Your task to perform on an android device: toggle wifi Image 0: 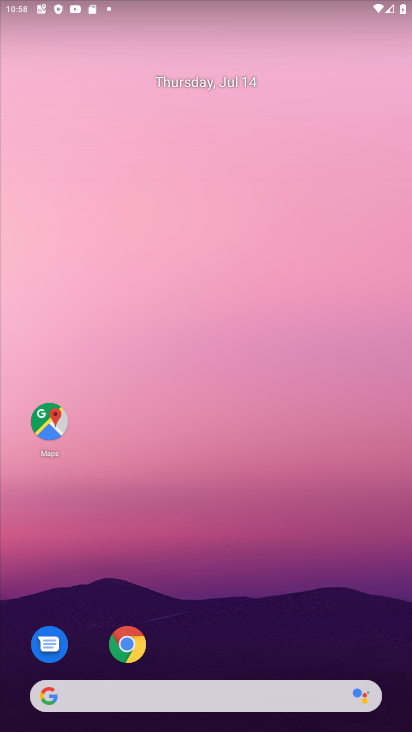
Step 0: drag from (187, 681) to (256, 37)
Your task to perform on an android device: toggle wifi Image 1: 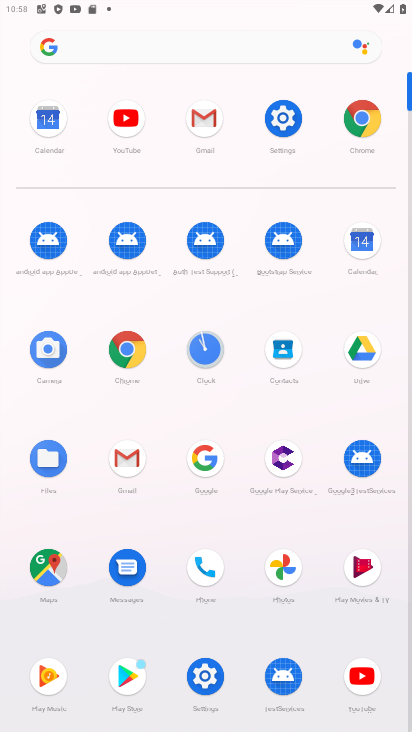
Step 1: click (278, 115)
Your task to perform on an android device: toggle wifi Image 2: 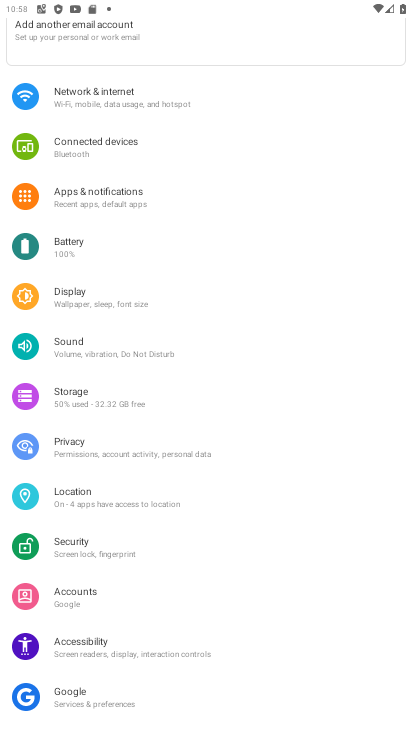
Step 2: click (87, 98)
Your task to perform on an android device: toggle wifi Image 3: 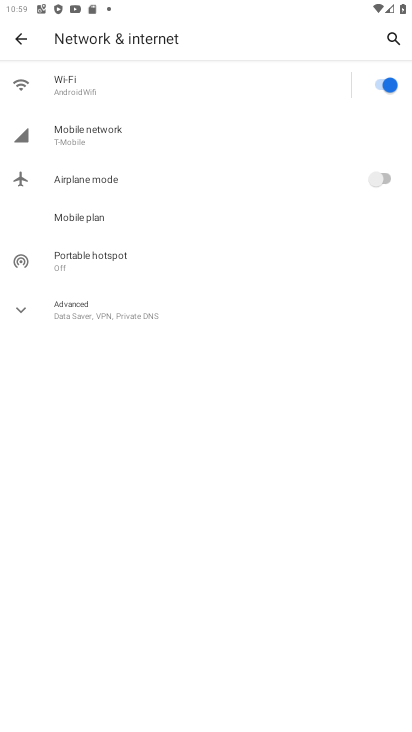
Step 3: click (390, 90)
Your task to perform on an android device: toggle wifi Image 4: 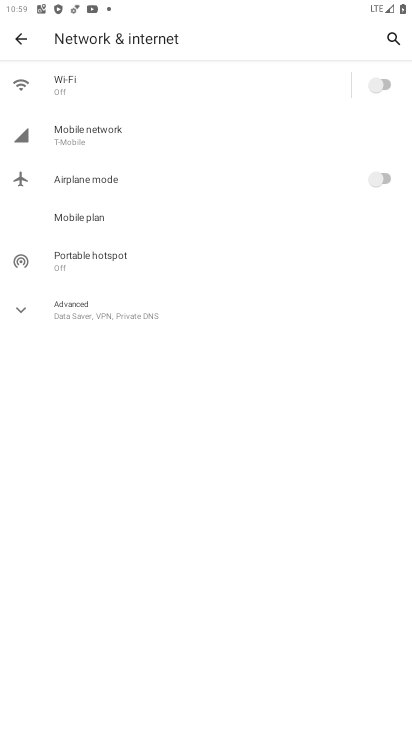
Step 4: task complete